Your task to perform on an android device: Open Google Maps and go to "Timeline" Image 0: 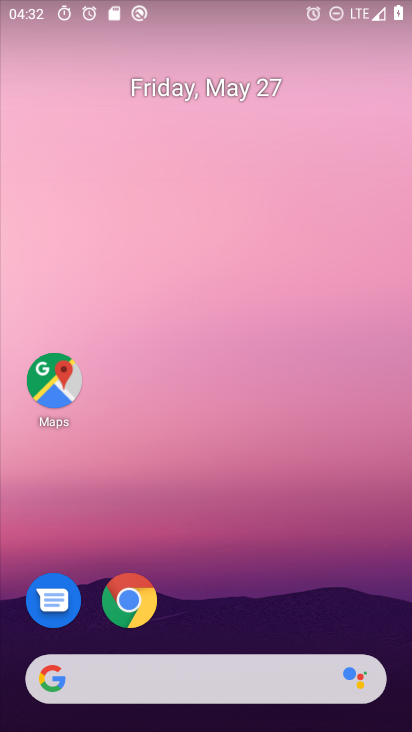
Step 0: drag from (181, 726) to (185, 59)
Your task to perform on an android device: Open Google Maps and go to "Timeline" Image 1: 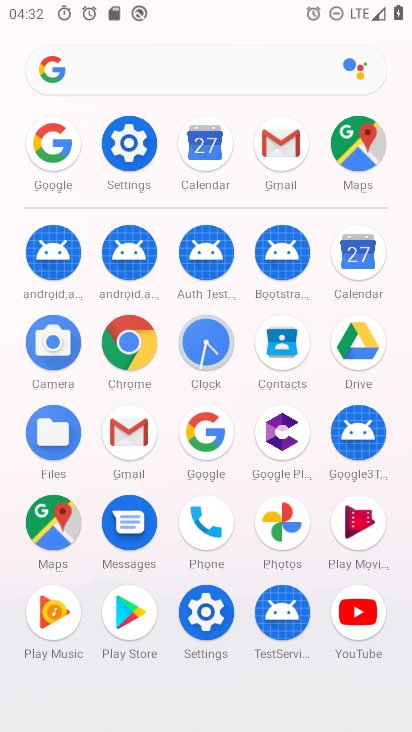
Step 1: click (56, 521)
Your task to perform on an android device: Open Google Maps and go to "Timeline" Image 2: 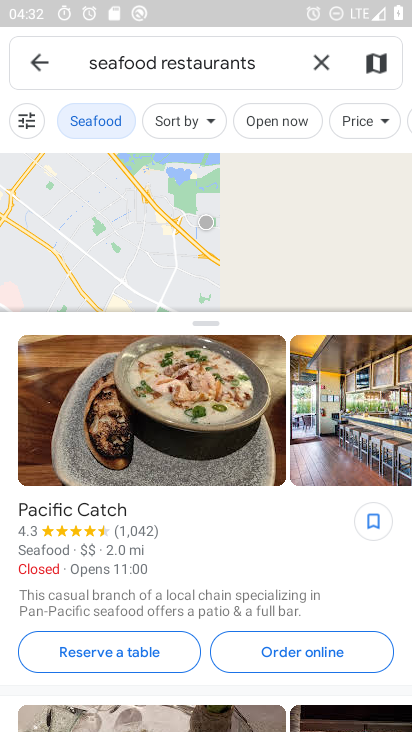
Step 2: click (43, 57)
Your task to perform on an android device: Open Google Maps and go to "Timeline" Image 3: 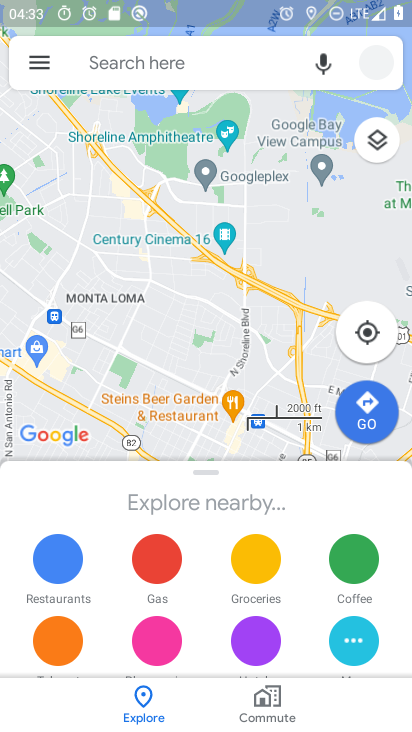
Step 3: click (43, 57)
Your task to perform on an android device: Open Google Maps and go to "Timeline" Image 4: 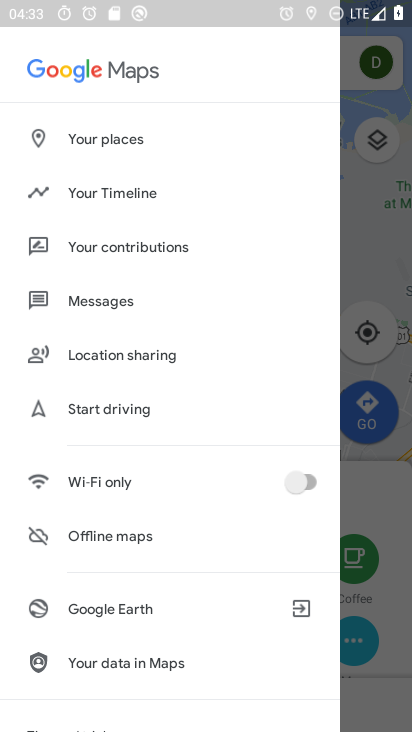
Step 4: click (107, 188)
Your task to perform on an android device: Open Google Maps and go to "Timeline" Image 5: 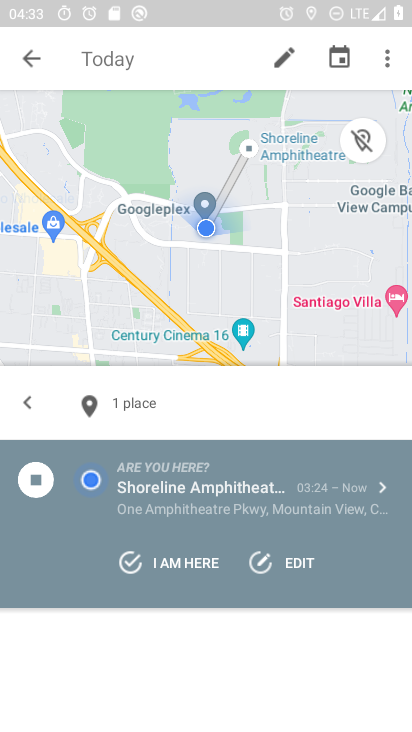
Step 5: task complete